Your task to perform on an android device: Search for Italian restaurants on Maps Image 0: 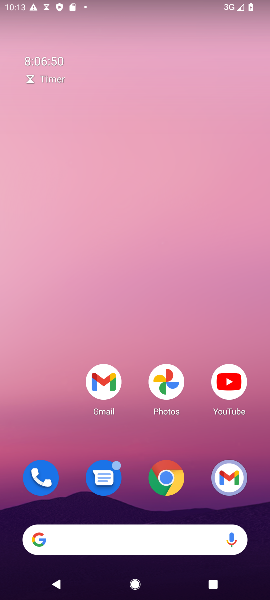
Step 0: drag from (198, 450) to (196, 109)
Your task to perform on an android device: Search for Italian restaurants on Maps Image 1: 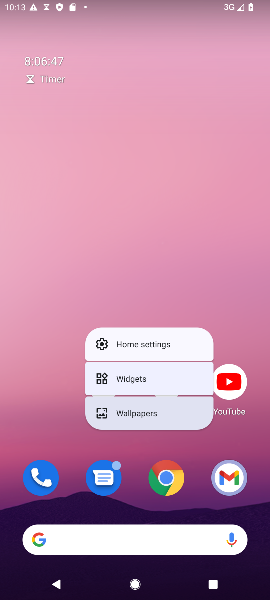
Step 1: drag from (265, 517) to (240, 167)
Your task to perform on an android device: Search for Italian restaurants on Maps Image 2: 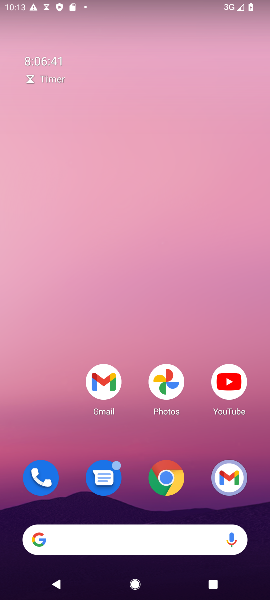
Step 2: drag from (7, 469) to (72, 47)
Your task to perform on an android device: Search for Italian restaurants on Maps Image 3: 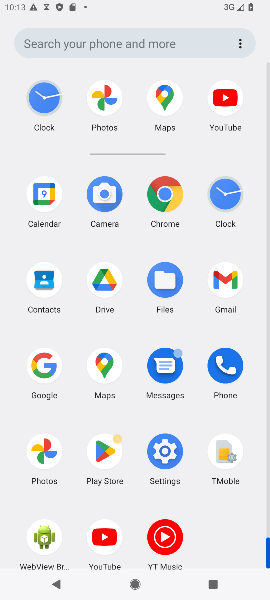
Step 3: click (104, 380)
Your task to perform on an android device: Search for Italian restaurants on Maps Image 4: 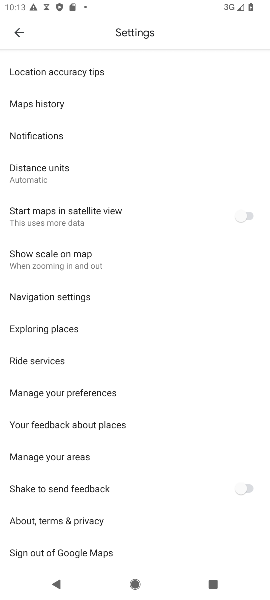
Step 4: click (18, 30)
Your task to perform on an android device: Search for Italian restaurants on Maps Image 5: 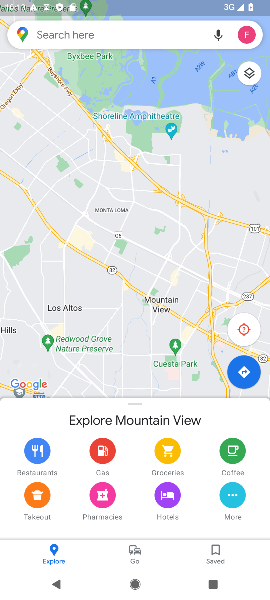
Step 5: click (72, 34)
Your task to perform on an android device: Search for Italian restaurants on Maps Image 6: 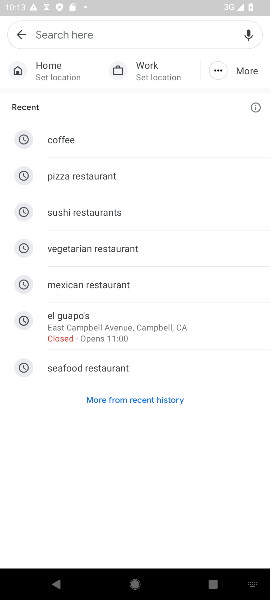
Step 6: type "Italian restaurants"
Your task to perform on an android device: Search for Italian restaurants on Maps Image 7: 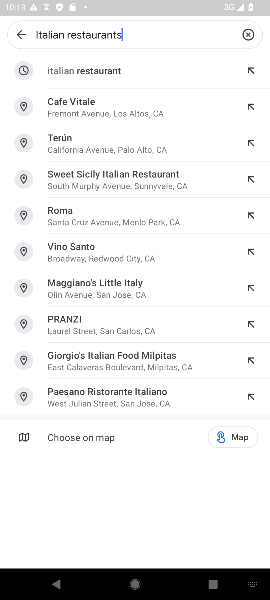
Step 7: click (111, 76)
Your task to perform on an android device: Search for Italian restaurants on Maps Image 8: 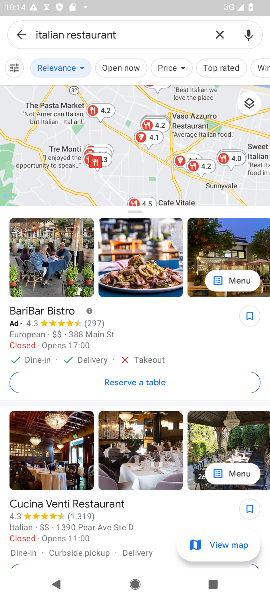
Step 8: task complete